Your task to perform on an android device: Is it going to rain tomorrow? Image 0: 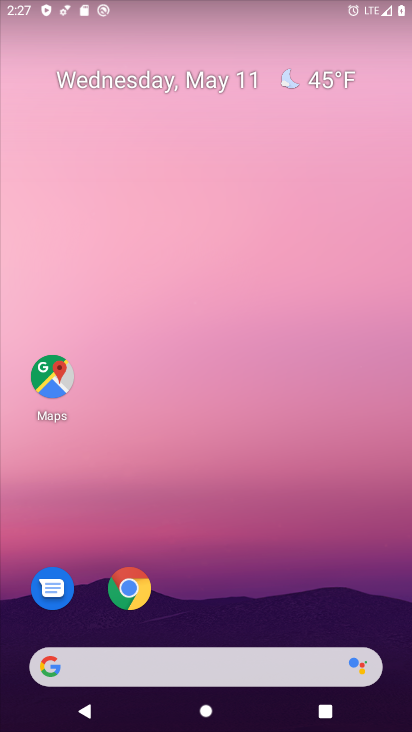
Step 0: drag from (232, 598) to (284, 240)
Your task to perform on an android device: Is it going to rain tomorrow? Image 1: 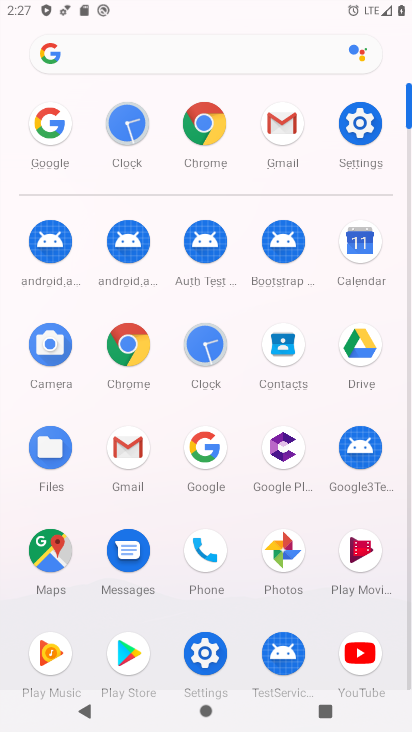
Step 1: click (192, 449)
Your task to perform on an android device: Is it going to rain tomorrow? Image 2: 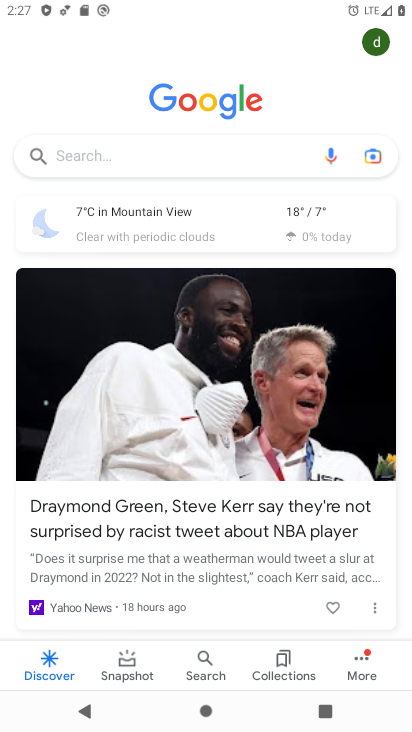
Step 2: click (228, 231)
Your task to perform on an android device: Is it going to rain tomorrow? Image 3: 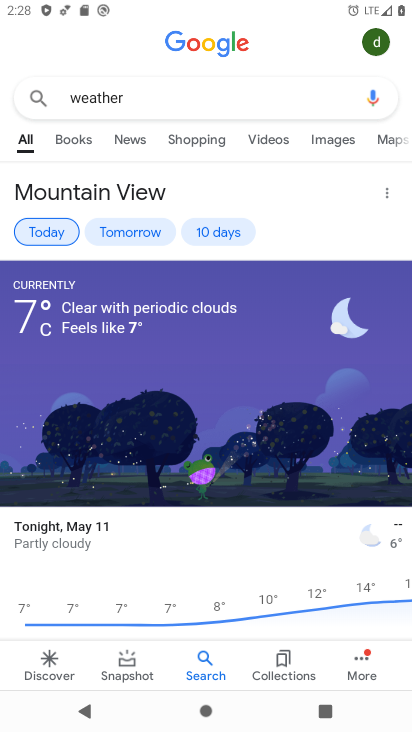
Step 3: click (138, 236)
Your task to perform on an android device: Is it going to rain tomorrow? Image 4: 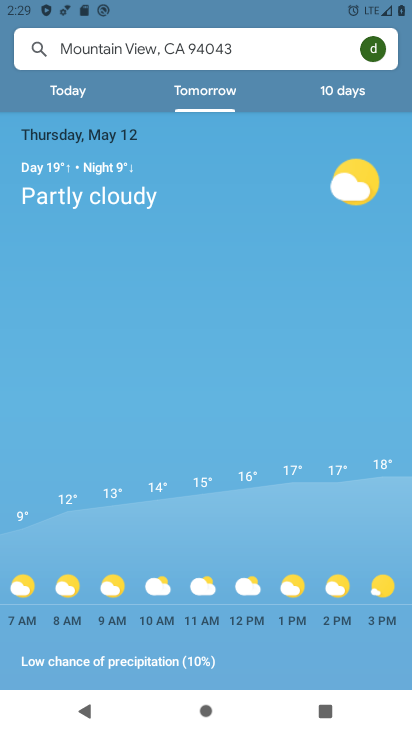
Step 4: task complete